Your task to perform on an android device: toggle priority inbox in the gmail app Image 0: 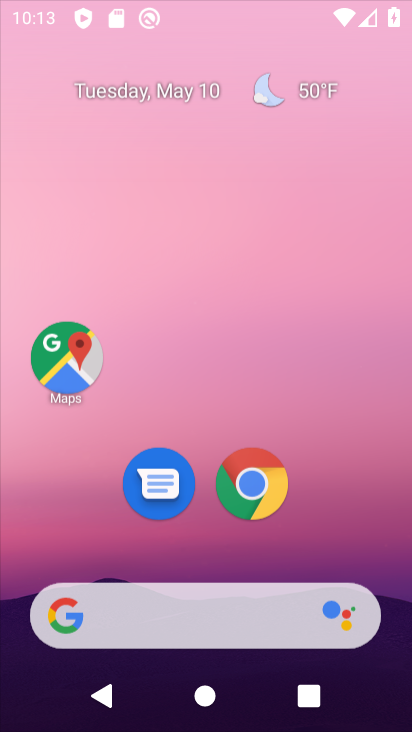
Step 0: click (284, 51)
Your task to perform on an android device: toggle priority inbox in the gmail app Image 1: 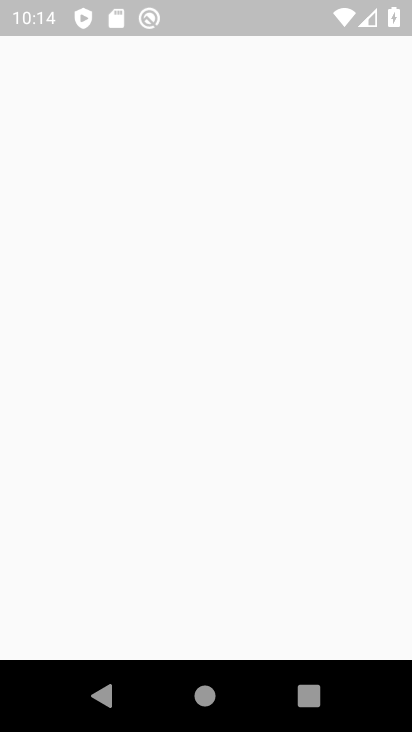
Step 1: drag from (317, 509) to (341, 53)
Your task to perform on an android device: toggle priority inbox in the gmail app Image 2: 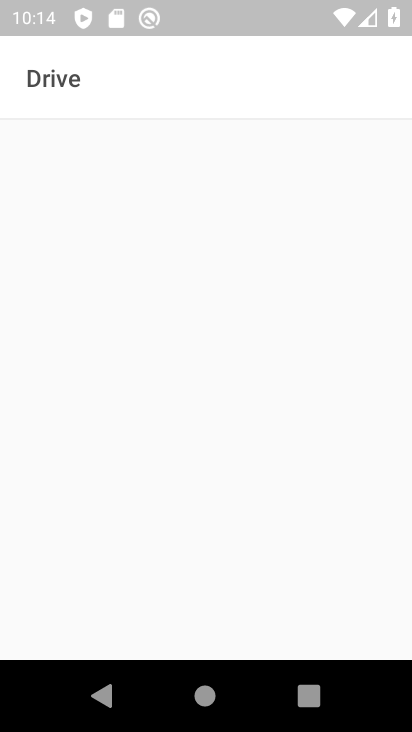
Step 2: press home button
Your task to perform on an android device: toggle priority inbox in the gmail app Image 3: 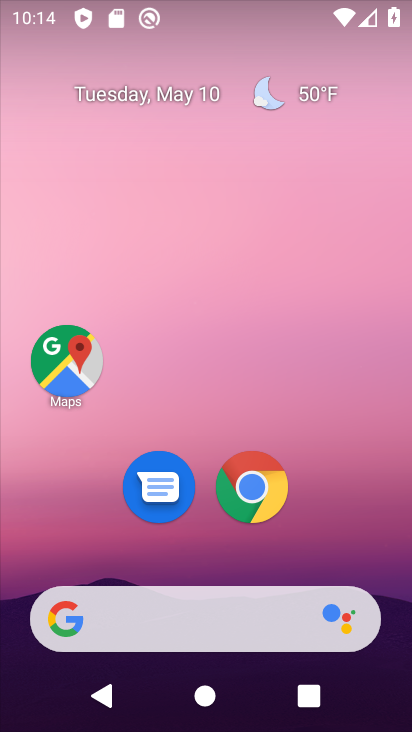
Step 3: drag from (313, 483) to (284, 21)
Your task to perform on an android device: toggle priority inbox in the gmail app Image 4: 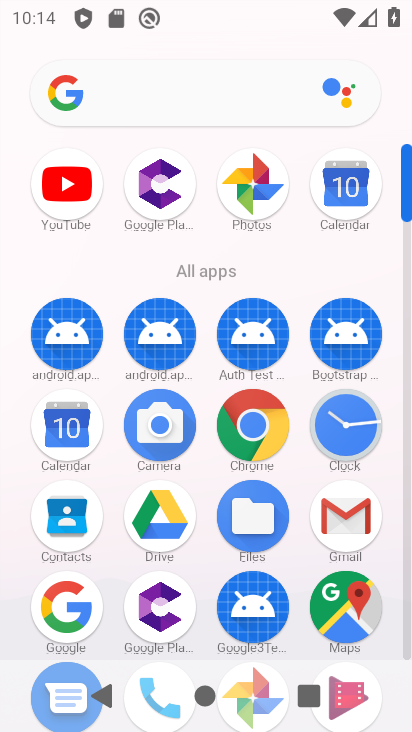
Step 4: click (345, 516)
Your task to perform on an android device: toggle priority inbox in the gmail app Image 5: 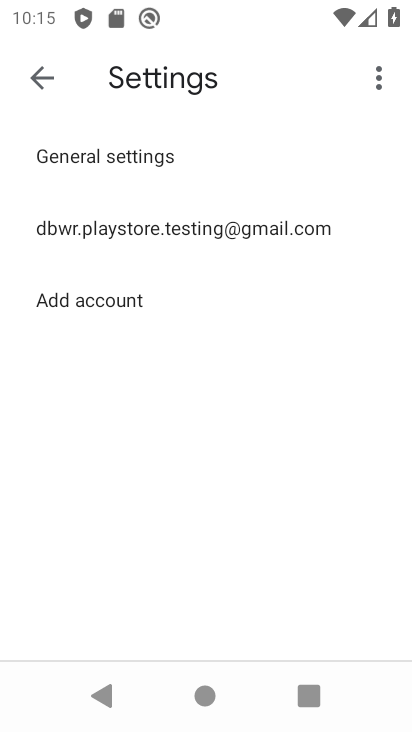
Step 5: click (105, 236)
Your task to perform on an android device: toggle priority inbox in the gmail app Image 6: 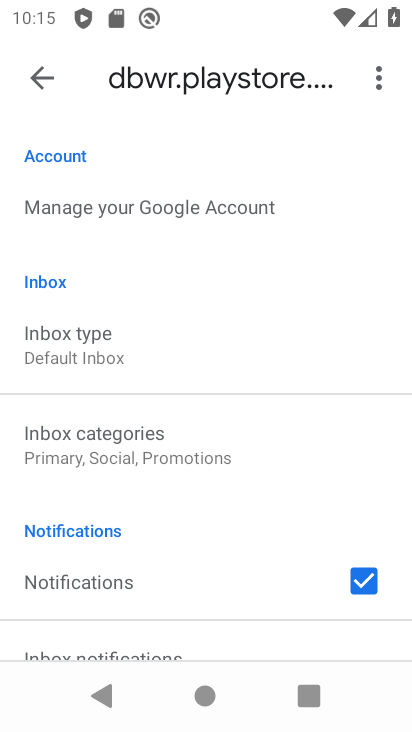
Step 6: click (74, 339)
Your task to perform on an android device: toggle priority inbox in the gmail app Image 7: 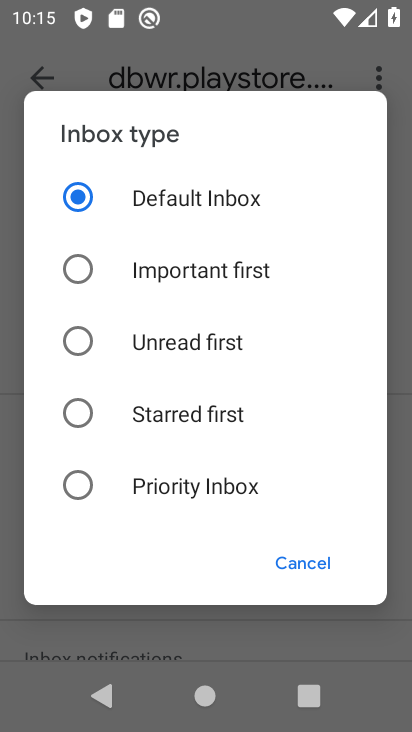
Step 7: click (142, 414)
Your task to perform on an android device: toggle priority inbox in the gmail app Image 8: 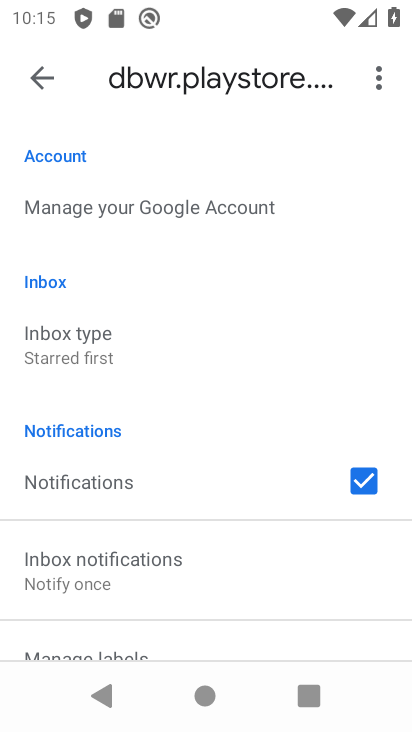
Step 8: task complete